Your task to perform on an android device: open device folders in google photos Image 0: 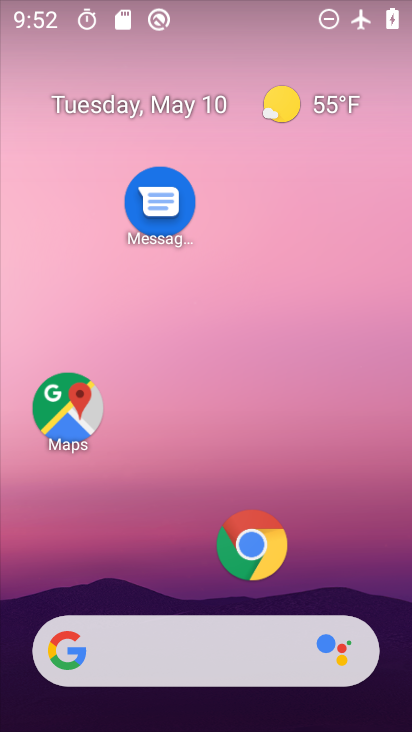
Step 0: drag from (158, 588) to (225, 94)
Your task to perform on an android device: open device folders in google photos Image 1: 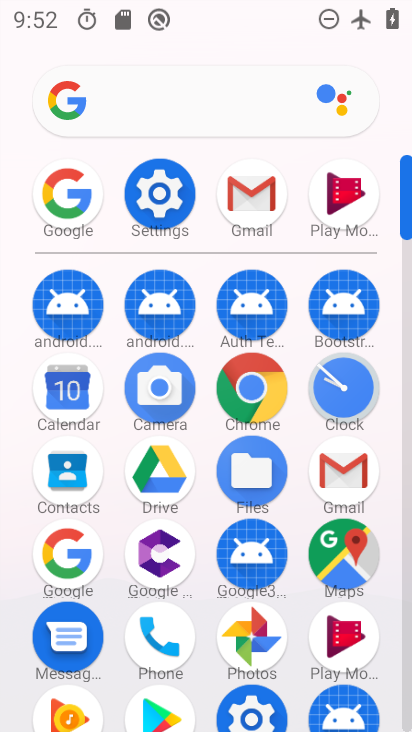
Step 1: click (248, 628)
Your task to perform on an android device: open device folders in google photos Image 2: 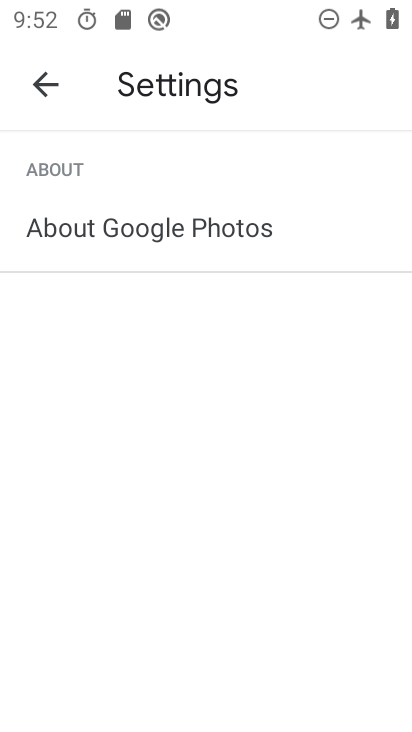
Step 2: click (49, 91)
Your task to perform on an android device: open device folders in google photos Image 3: 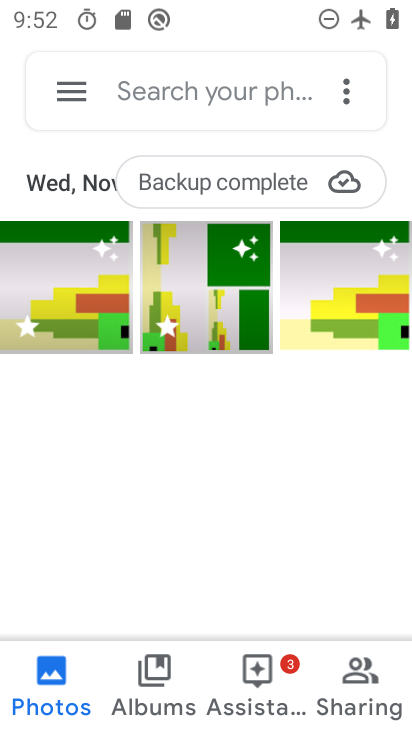
Step 3: click (49, 91)
Your task to perform on an android device: open device folders in google photos Image 4: 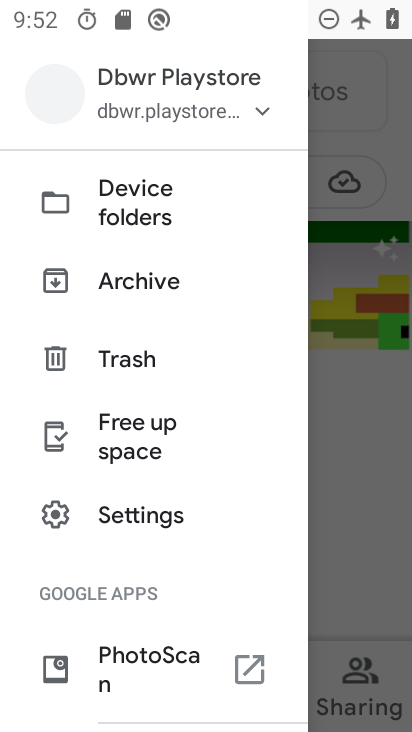
Step 4: click (143, 193)
Your task to perform on an android device: open device folders in google photos Image 5: 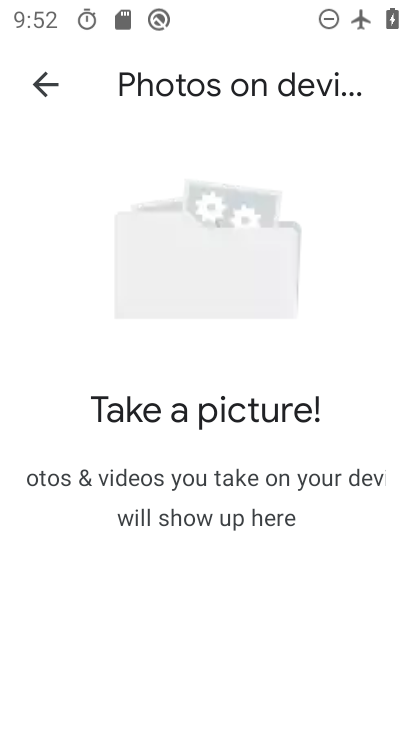
Step 5: task complete